Your task to perform on an android device: allow notifications from all sites in the chrome app Image 0: 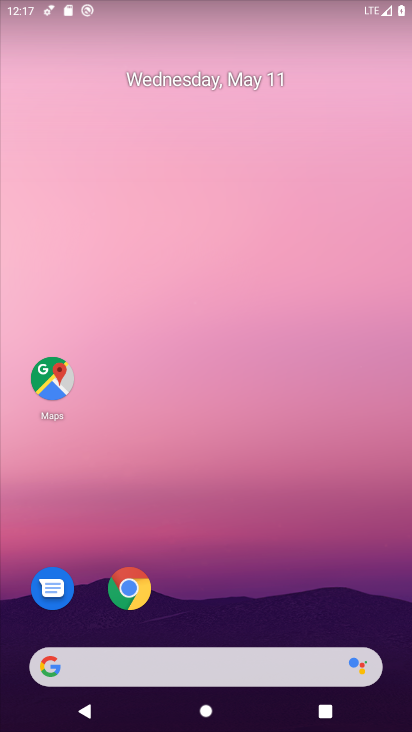
Step 0: press home button
Your task to perform on an android device: allow notifications from all sites in the chrome app Image 1: 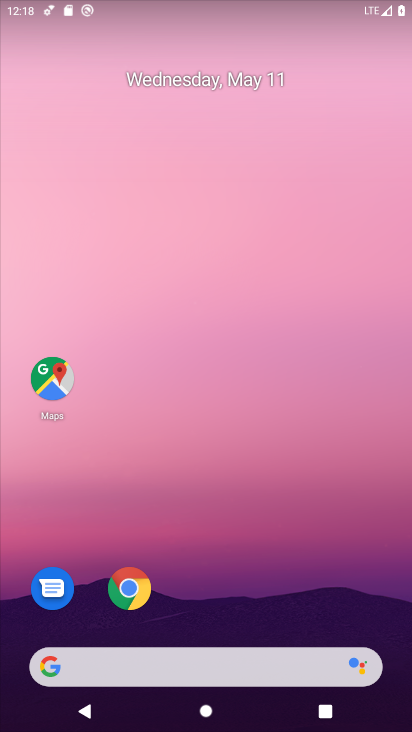
Step 1: click (124, 588)
Your task to perform on an android device: allow notifications from all sites in the chrome app Image 2: 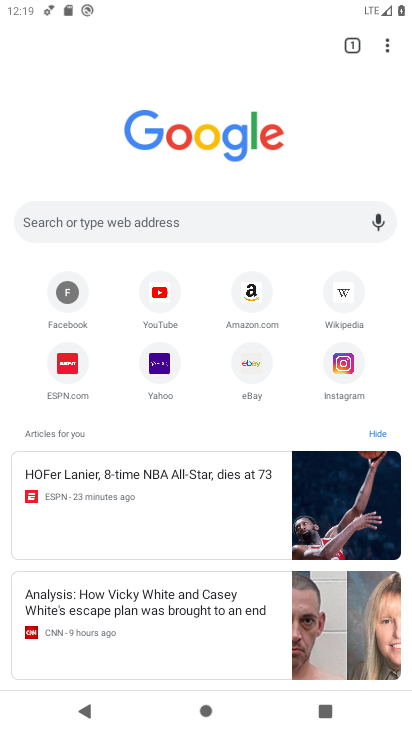
Step 2: click (382, 41)
Your task to perform on an android device: allow notifications from all sites in the chrome app Image 3: 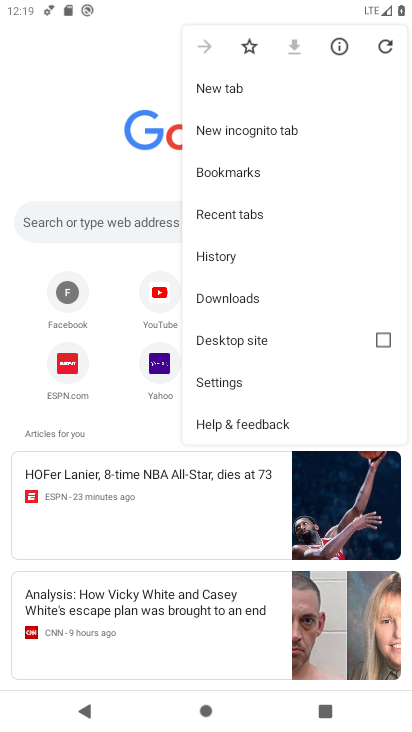
Step 3: click (236, 386)
Your task to perform on an android device: allow notifications from all sites in the chrome app Image 4: 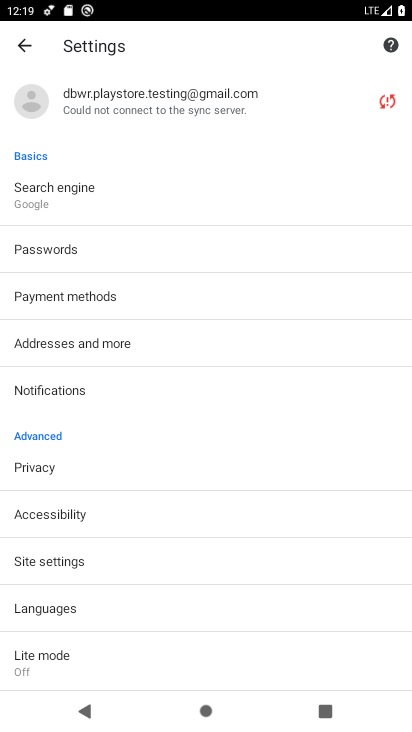
Step 4: click (47, 561)
Your task to perform on an android device: allow notifications from all sites in the chrome app Image 5: 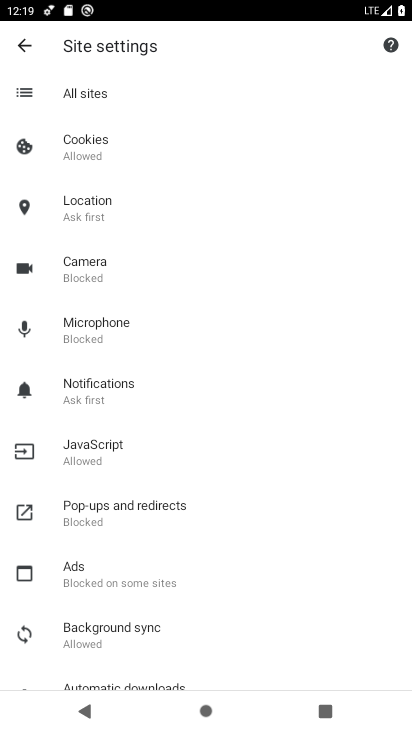
Step 5: click (94, 380)
Your task to perform on an android device: allow notifications from all sites in the chrome app Image 6: 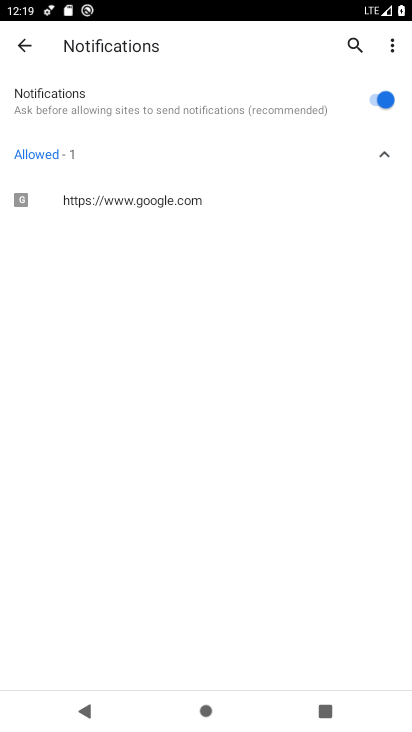
Step 6: task complete